Your task to perform on an android device: open app "Skype" Image 0: 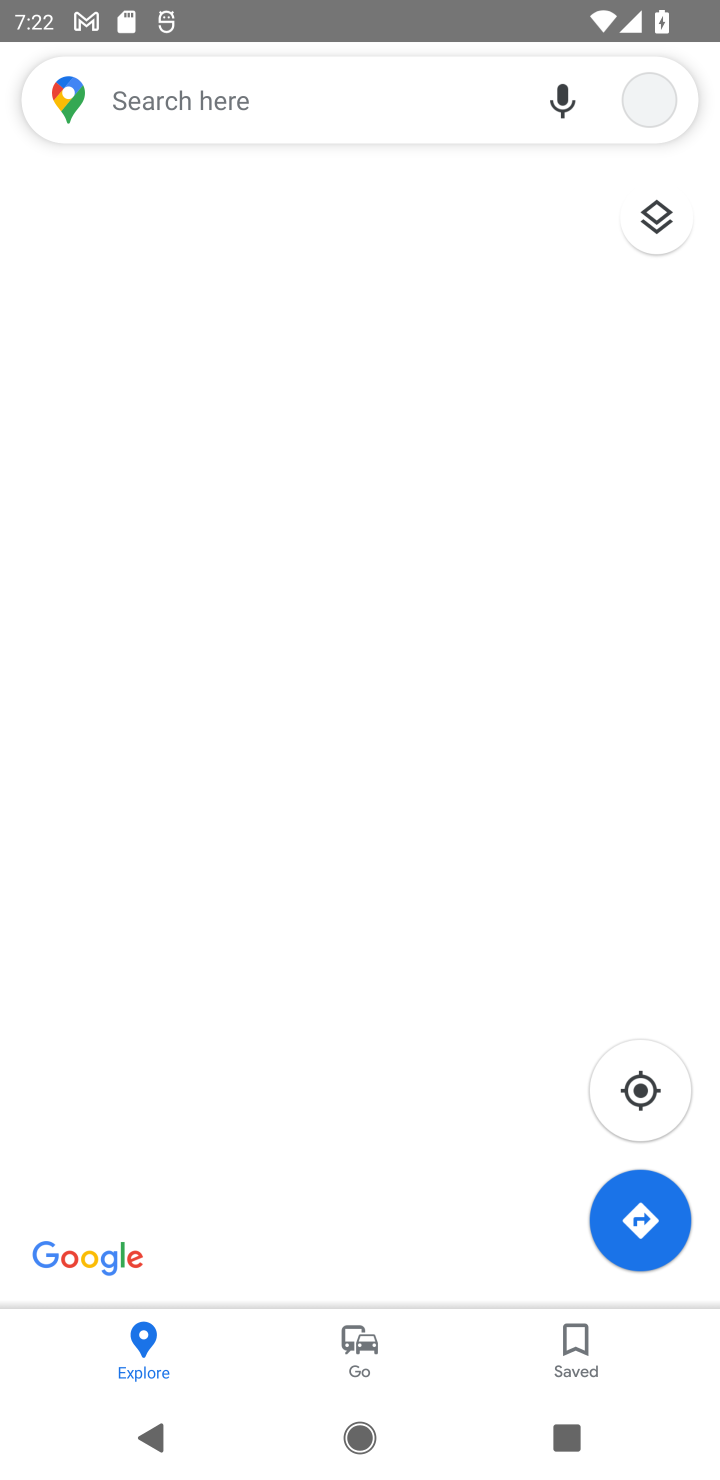
Step 0: press home button
Your task to perform on an android device: open app "Skype" Image 1: 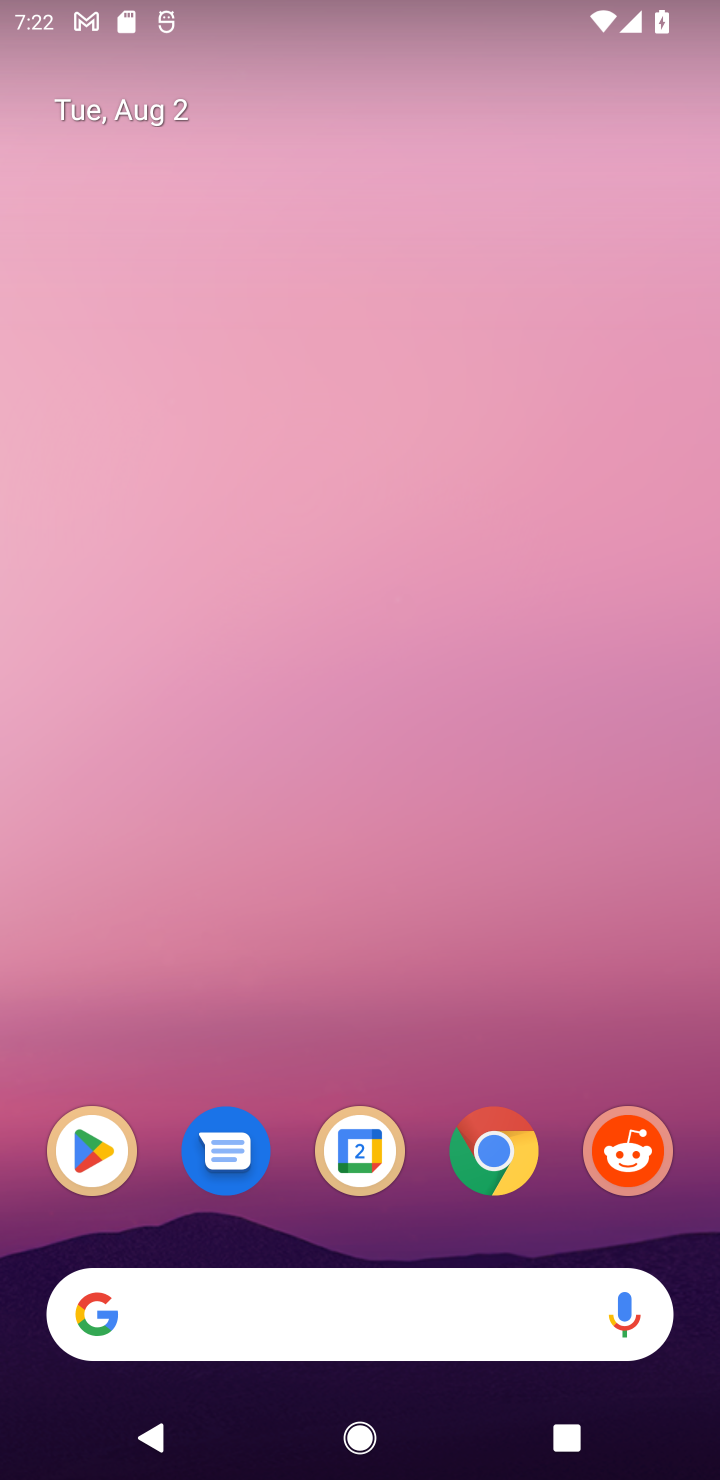
Step 1: press home button
Your task to perform on an android device: open app "Skype" Image 2: 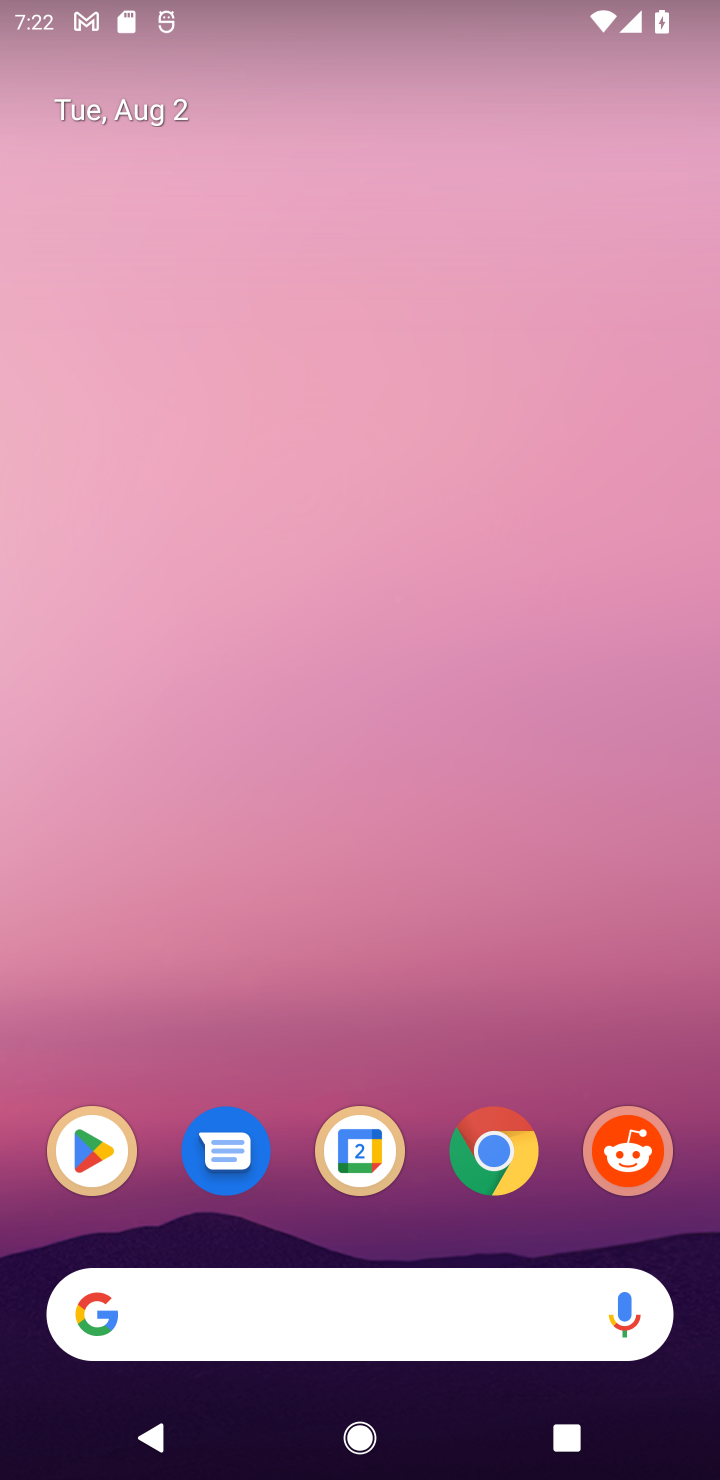
Step 2: drag from (413, 1227) to (547, 1019)
Your task to perform on an android device: open app "Skype" Image 3: 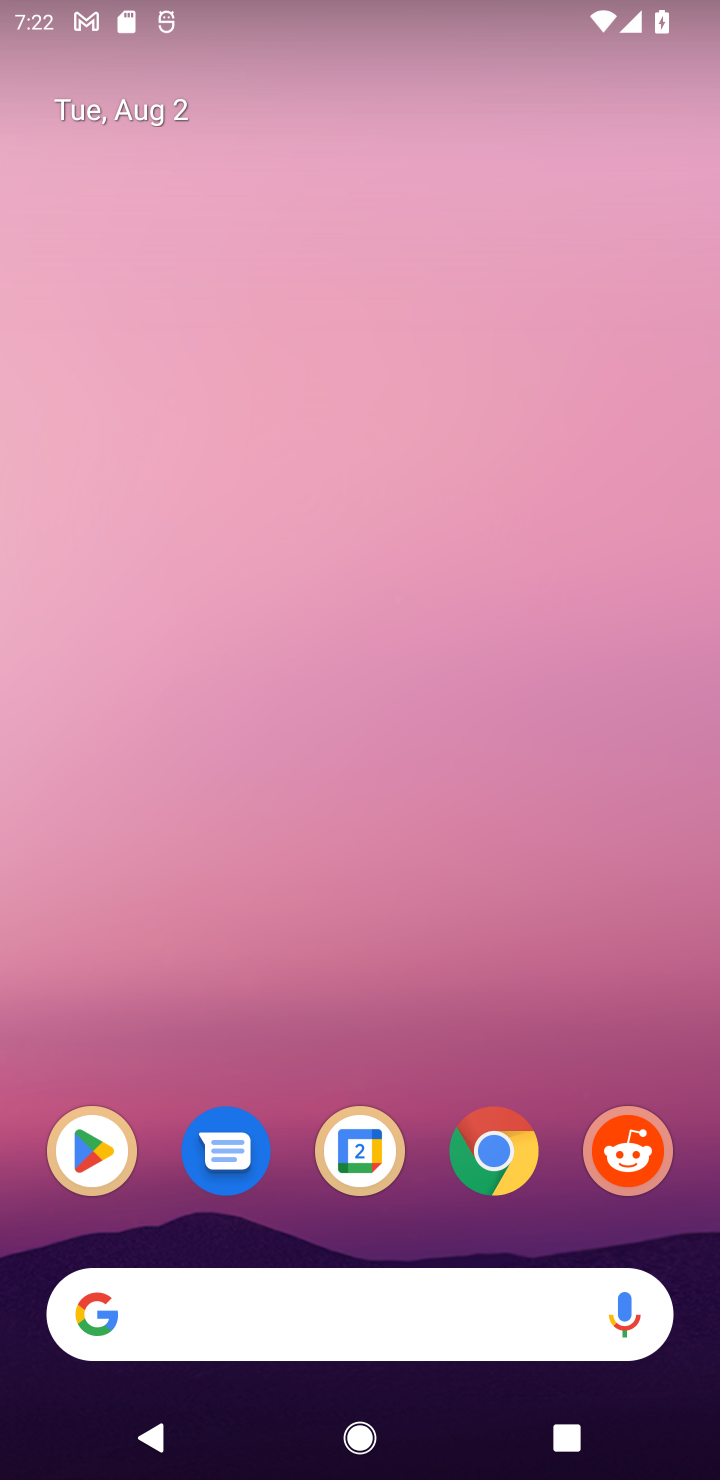
Step 3: drag from (347, 1228) to (714, 1143)
Your task to perform on an android device: open app "Skype" Image 4: 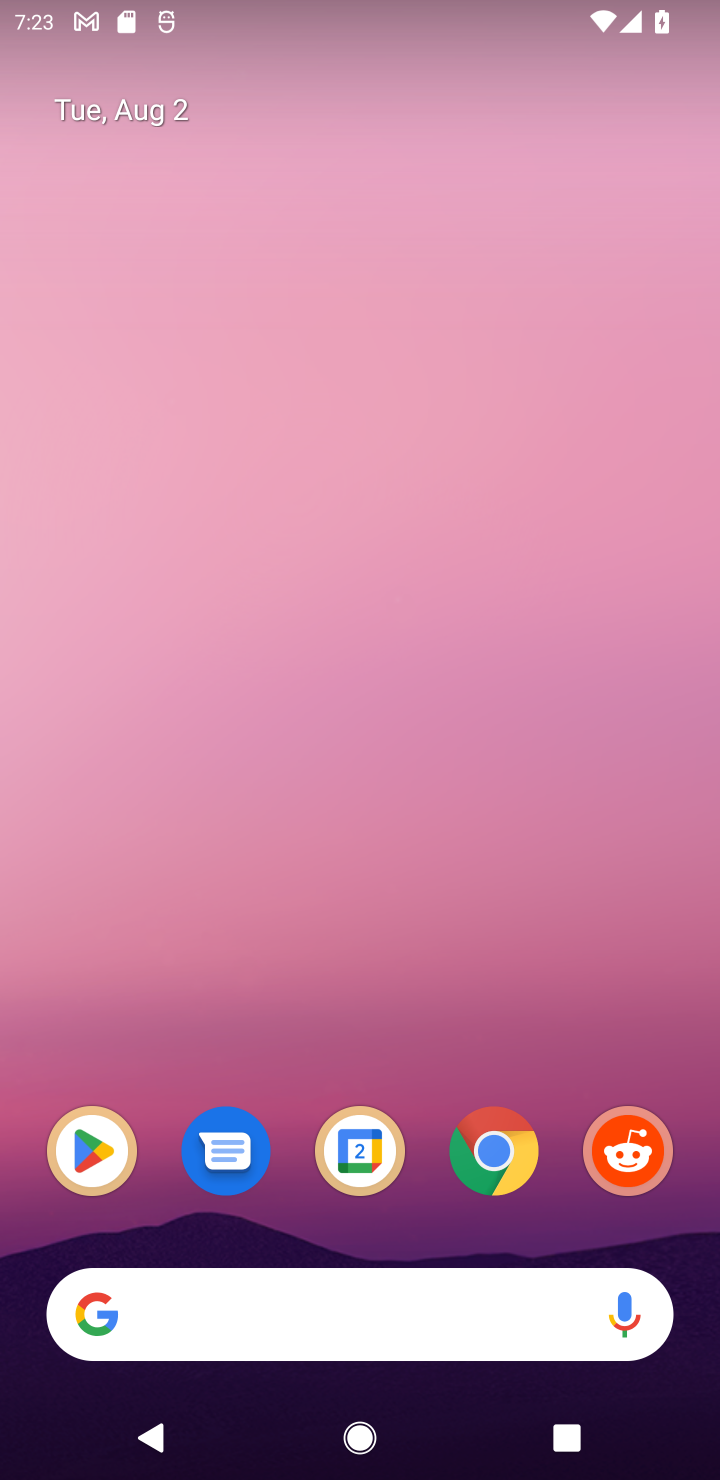
Step 4: drag from (512, 1296) to (538, 121)
Your task to perform on an android device: open app "Skype" Image 5: 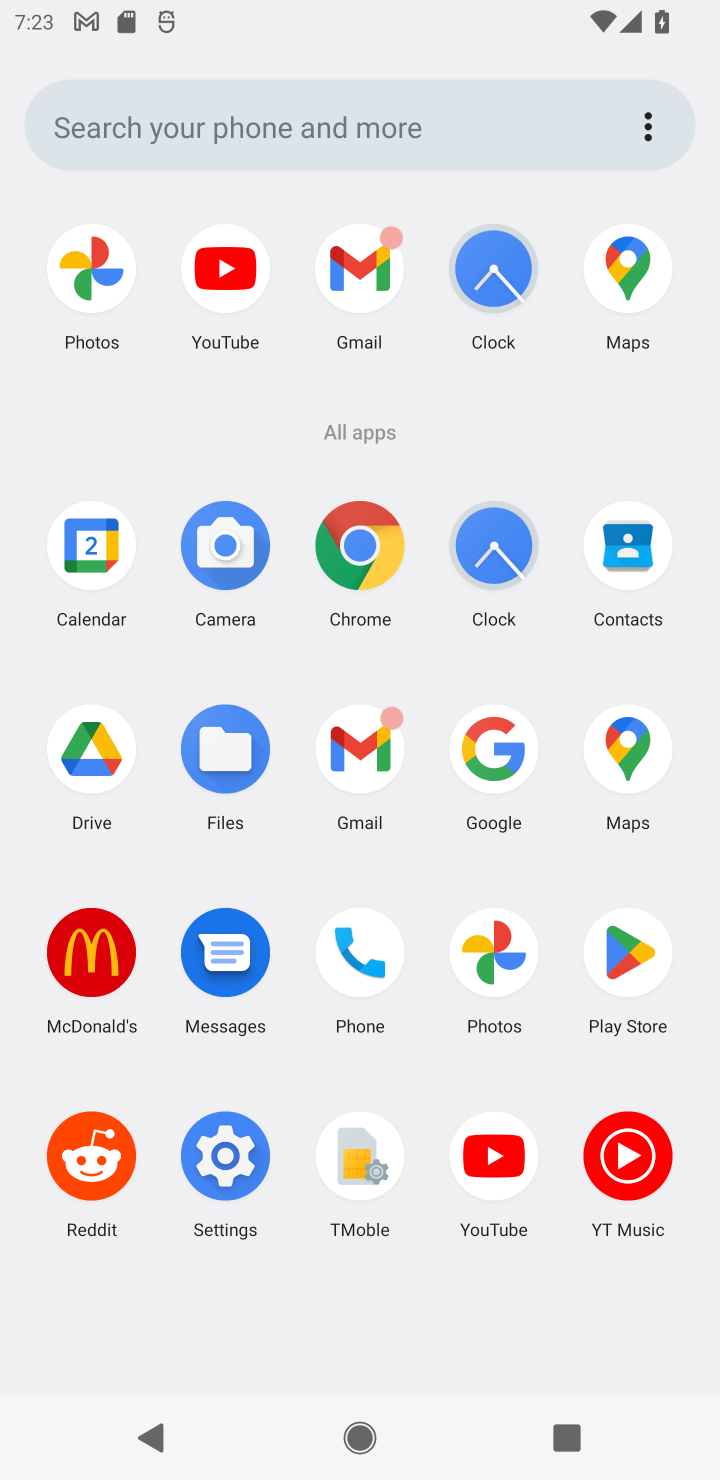
Step 5: click (623, 985)
Your task to perform on an android device: open app "Skype" Image 6: 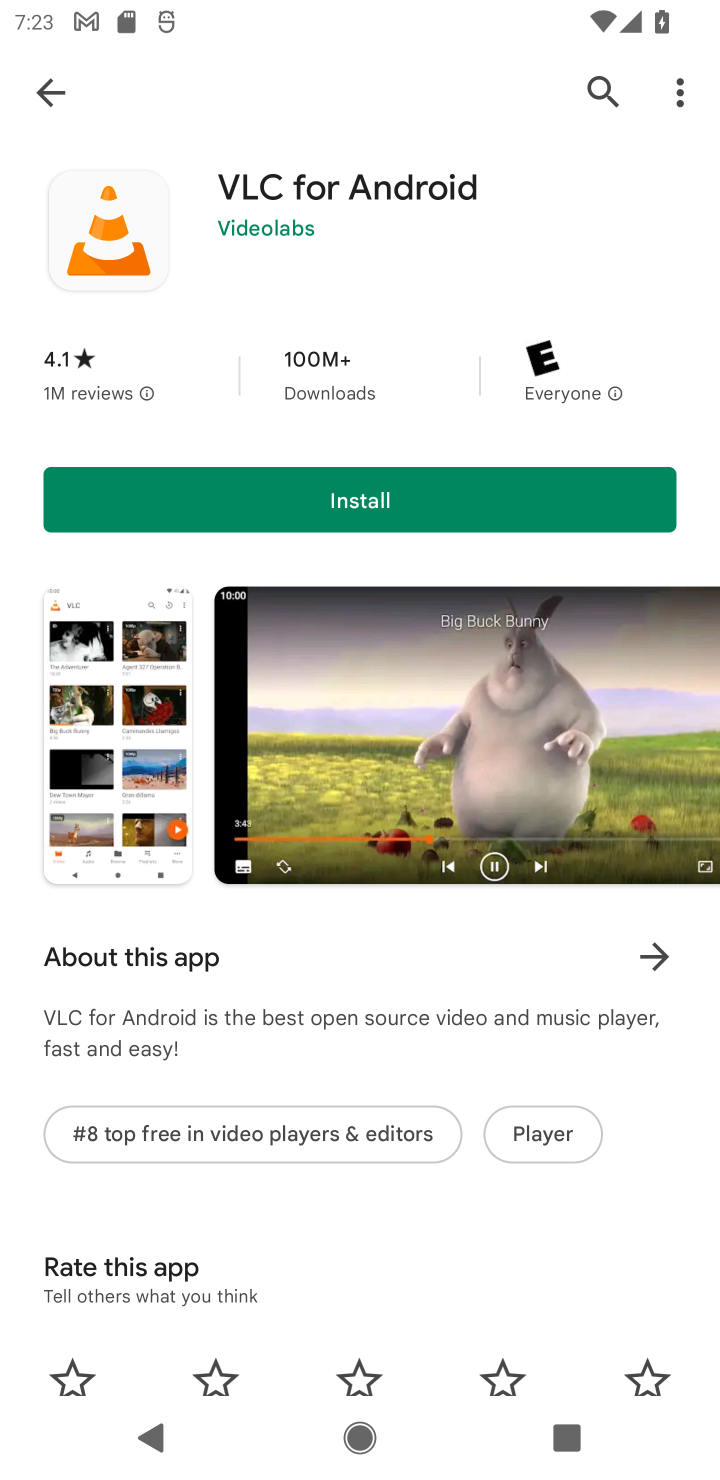
Step 6: click (59, 86)
Your task to perform on an android device: open app "Skype" Image 7: 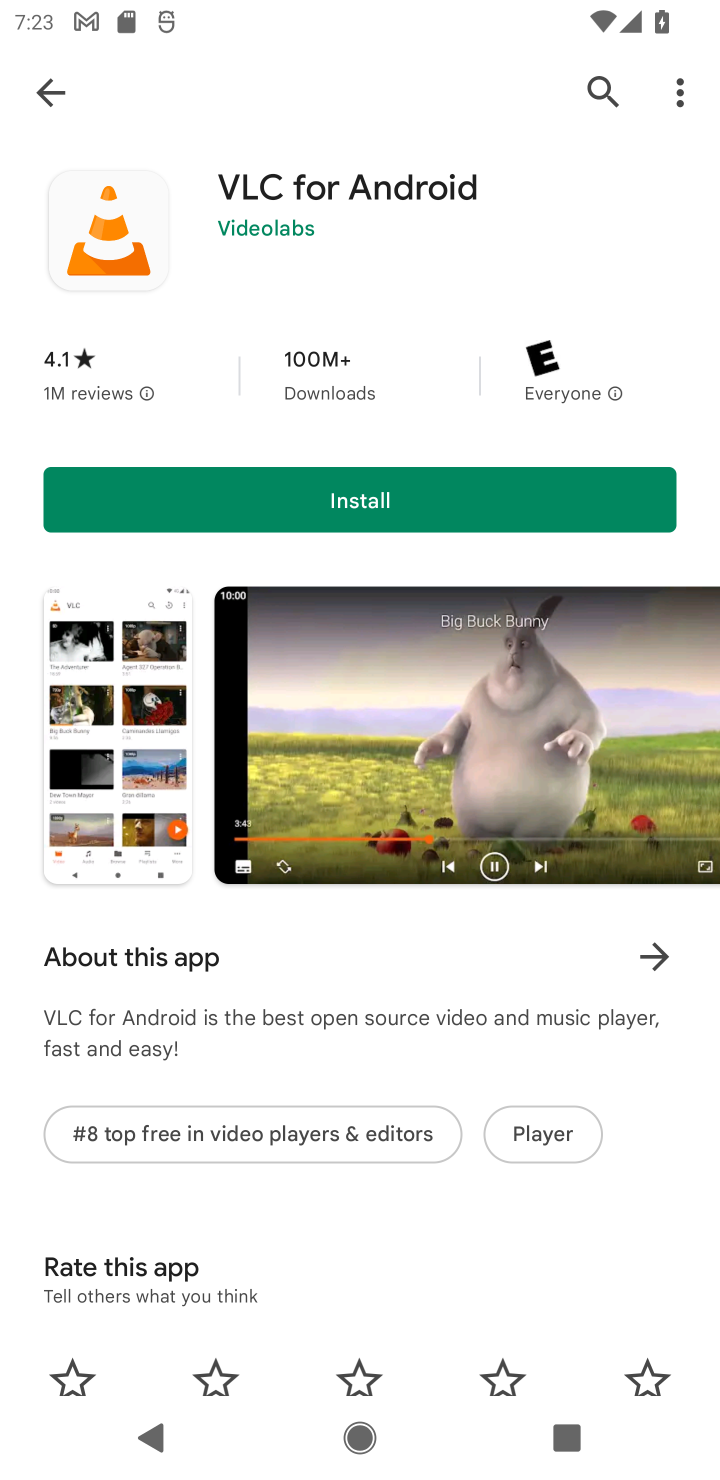
Step 7: click (59, 86)
Your task to perform on an android device: open app "Skype" Image 8: 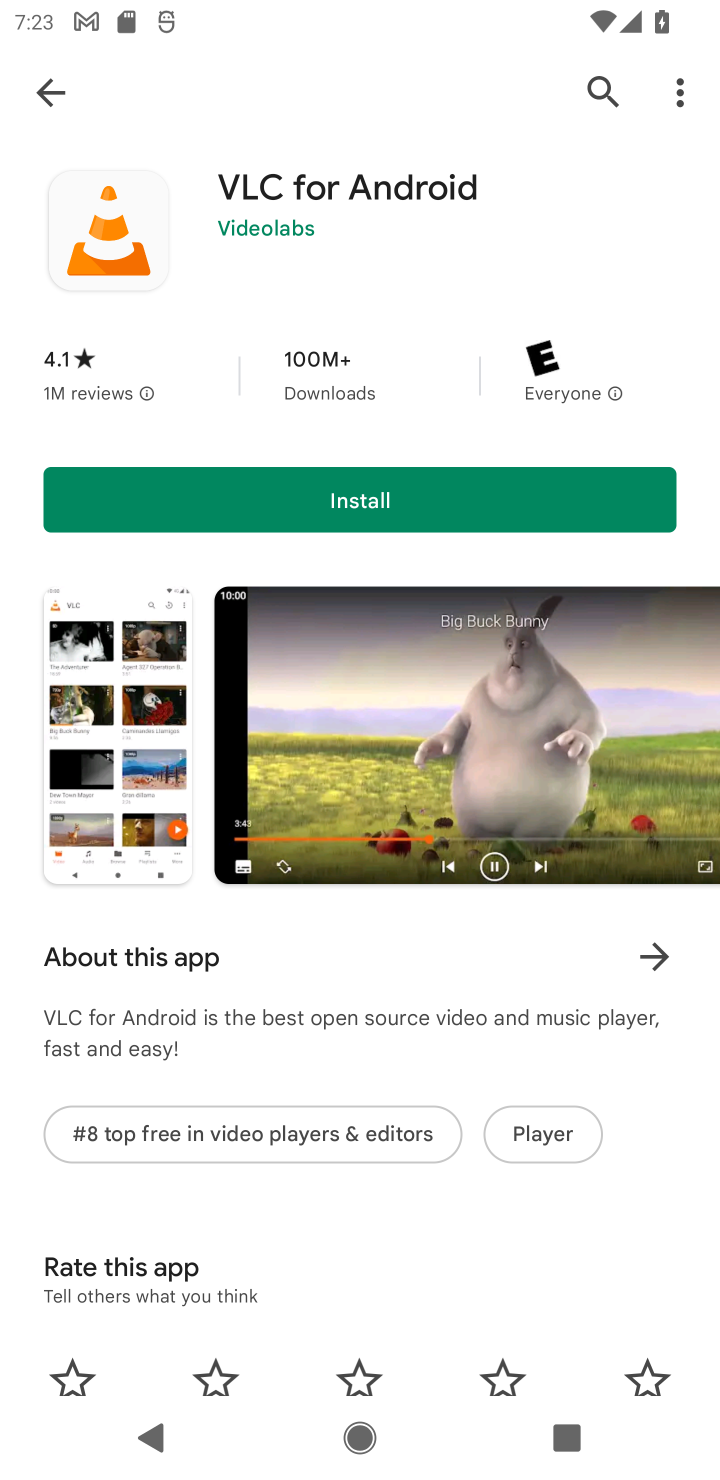
Step 8: click (59, 86)
Your task to perform on an android device: open app "Skype" Image 9: 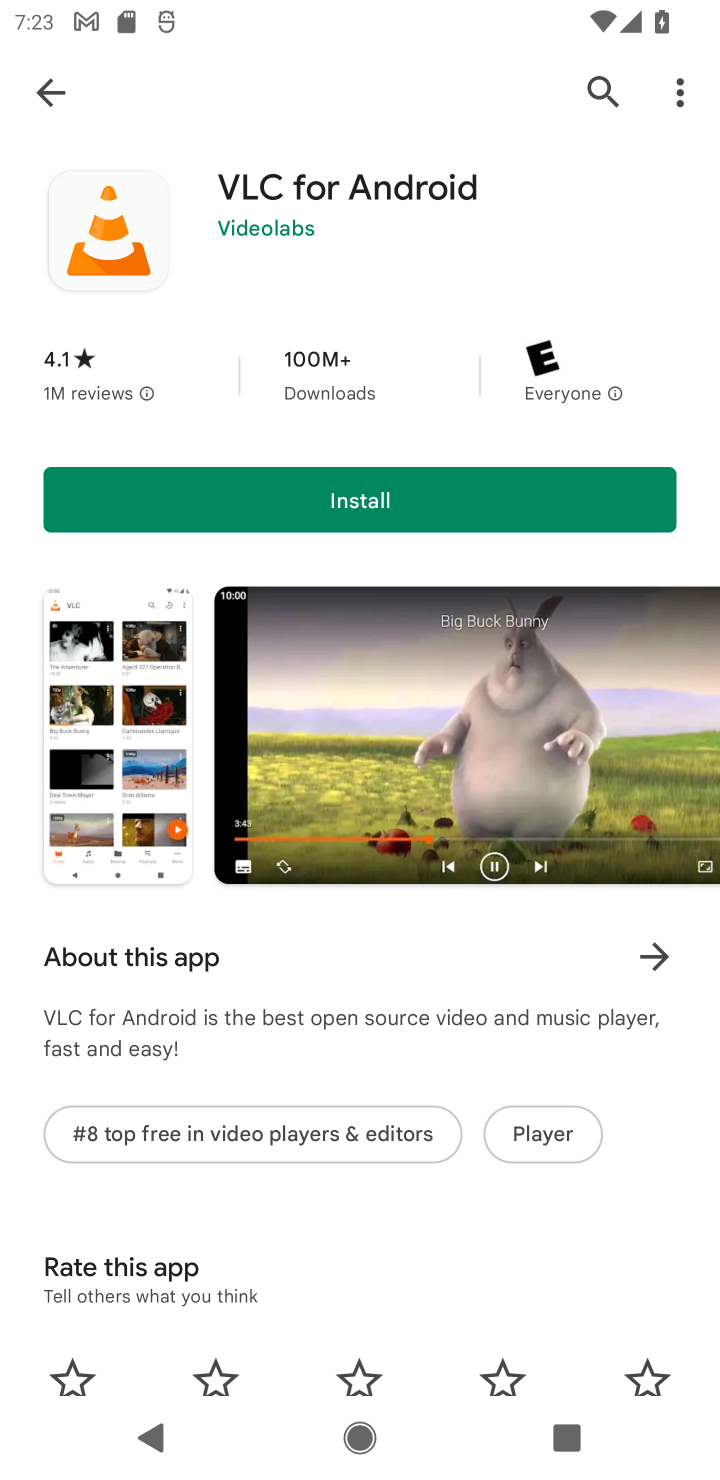
Step 9: click (57, 81)
Your task to perform on an android device: open app "Skype" Image 10: 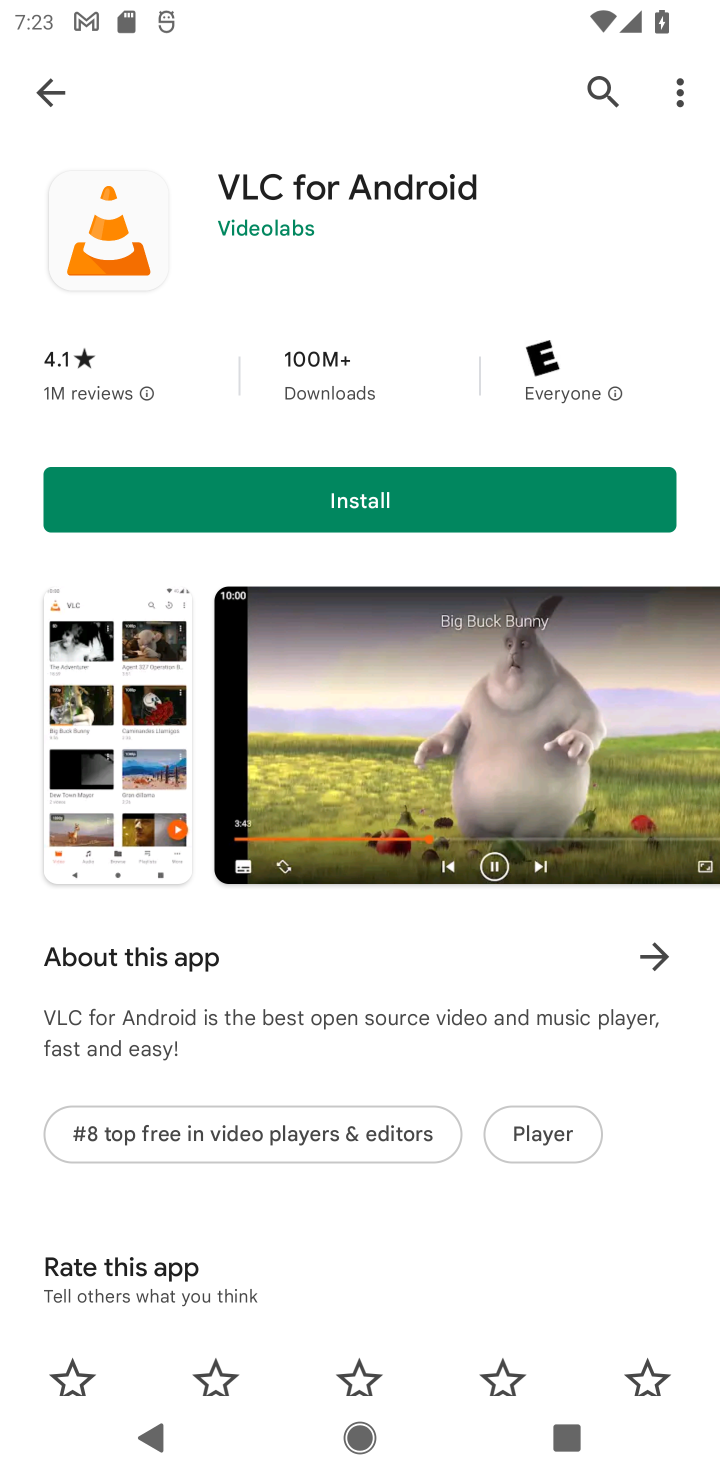
Step 10: click (601, 102)
Your task to perform on an android device: open app "Skype" Image 11: 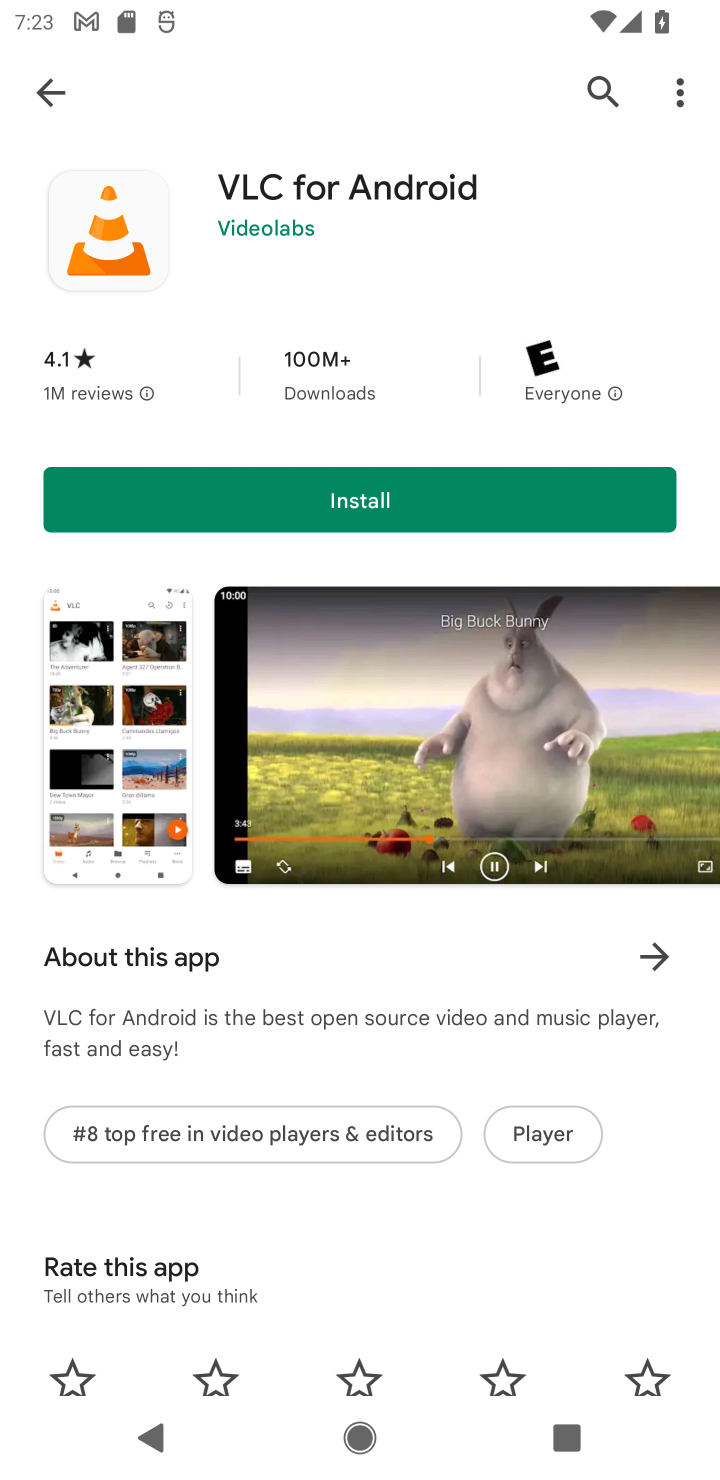
Step 11: click (601, 106)
Your task to perform on an android device: open app "Skype" Image 12: 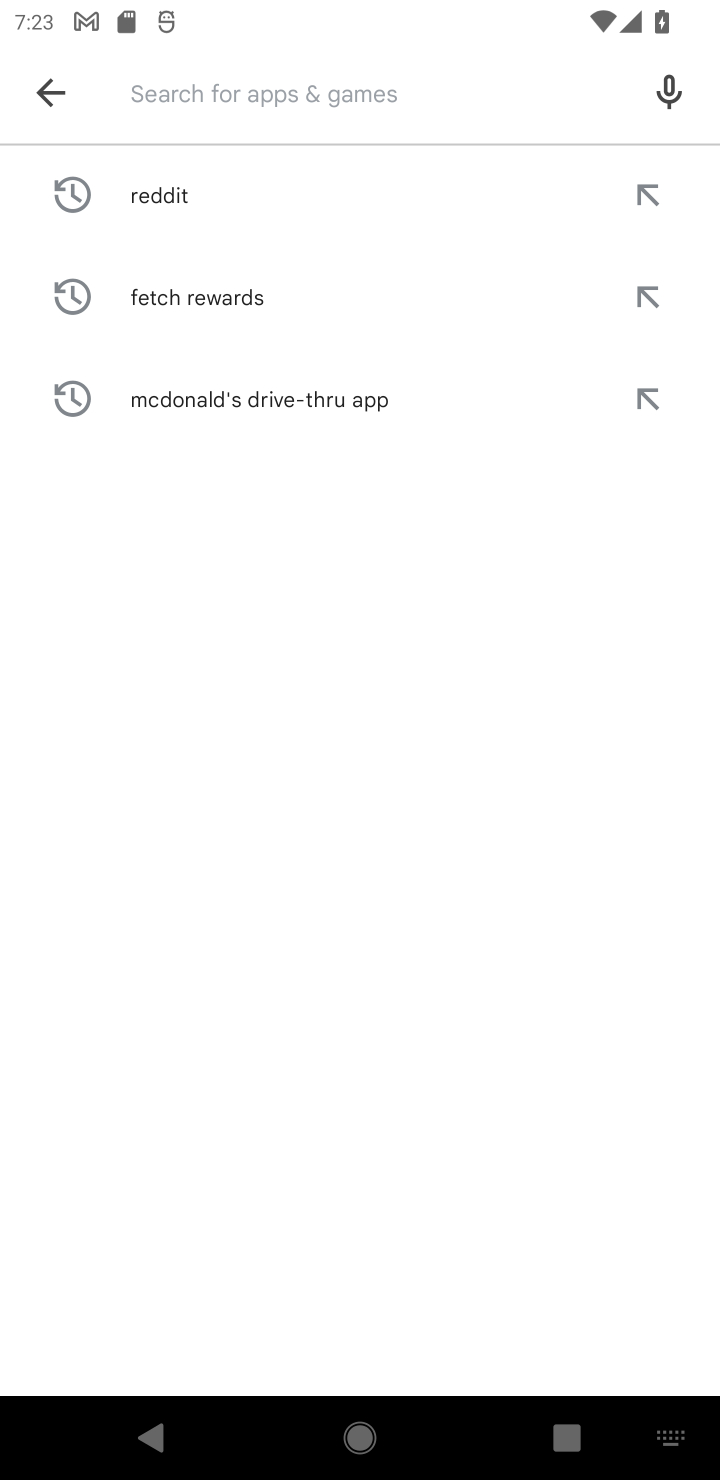
Step 12: type "Skype"
Your task to perform on an android device: open app "Skype" Image 13: 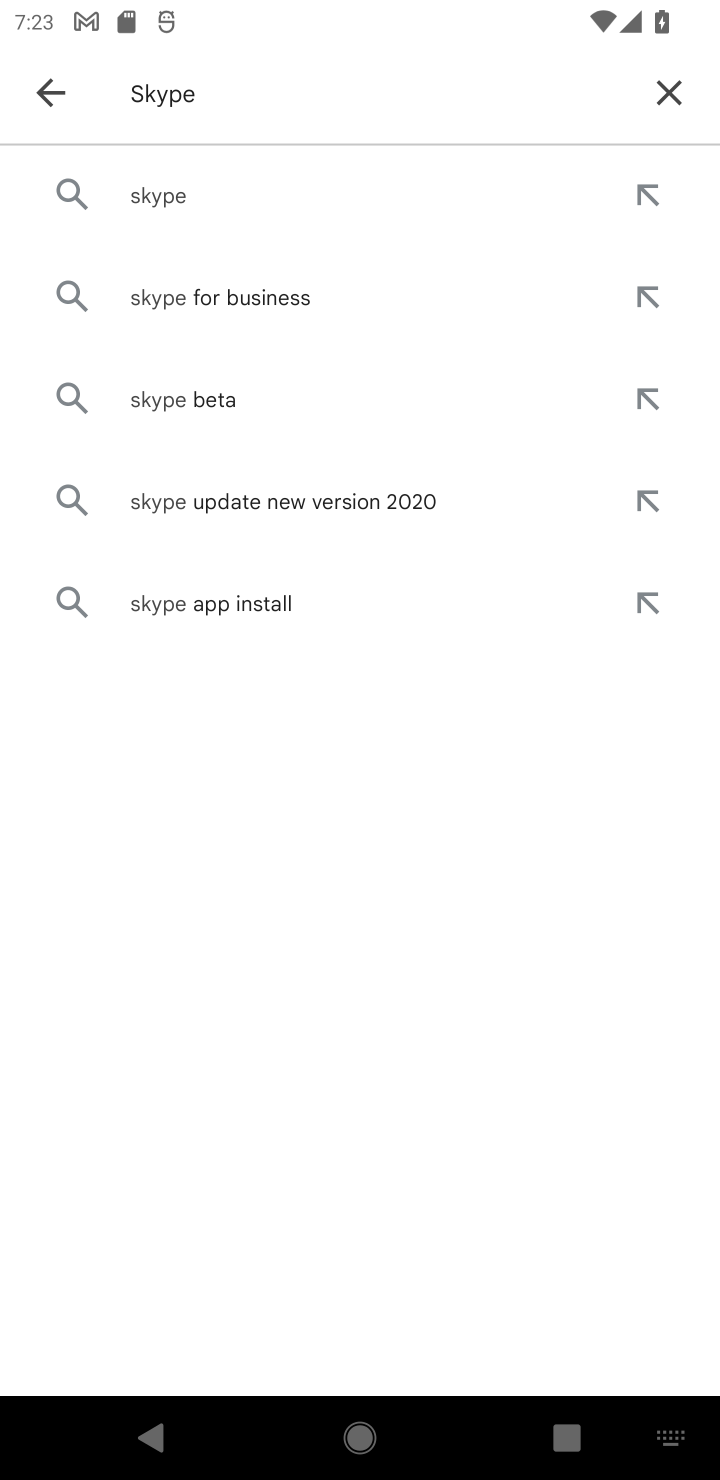
Step 13: click (181, 190)
Your task to perform on an android device: open app "Skype" Image 14: 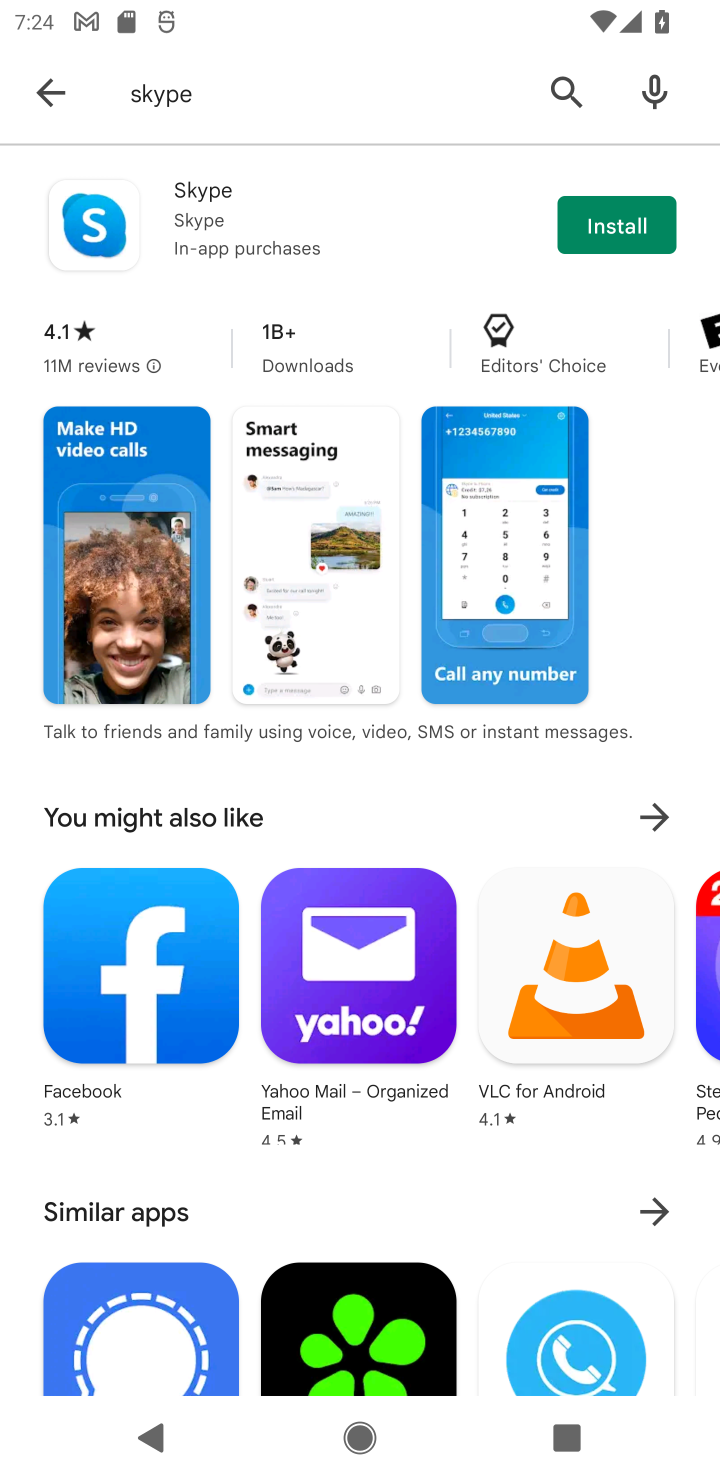
Step 14: task complete